Your task to perform on an android device: Open Google Chrome and open the bookmarks view Image 0: 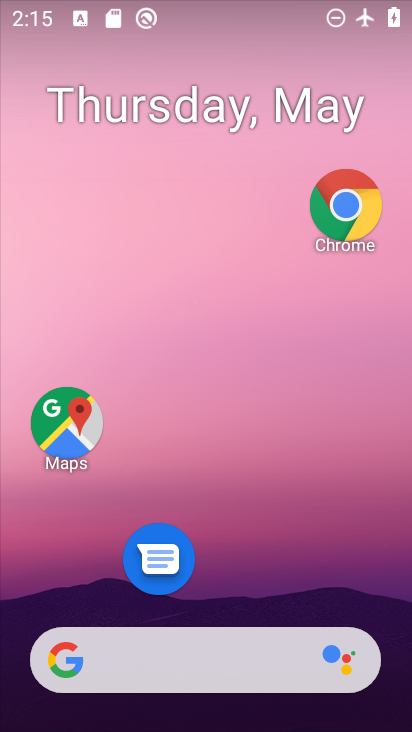
Step 0: drag from (223, 581) to (334, 86)
Your task to perform on an android device: Open Google Chrome and open the bookmarks view Image 1: 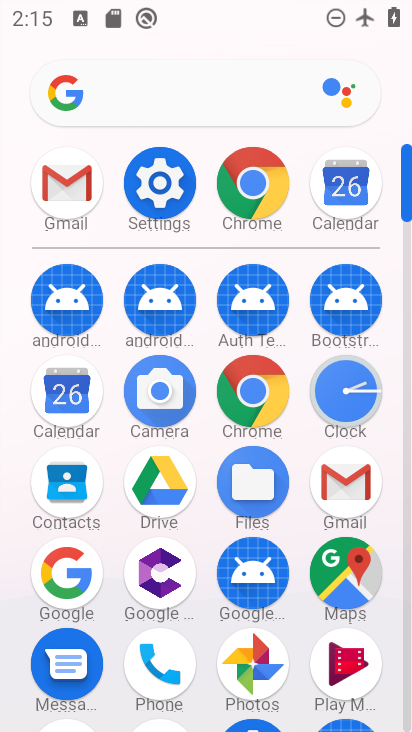
Step 1: click (262, 416)
Your task to perform on an android device: Open Google Chrome and open the bookmarks view Image 2: 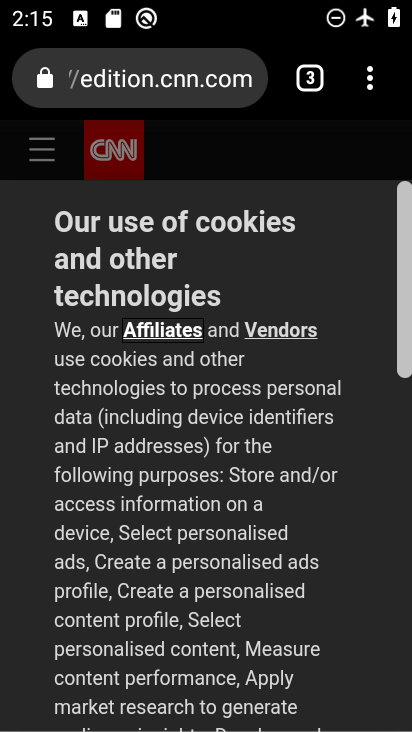
Step 2: click (377, 88)
Your task to perform on an android device: Open Google Chrome and open the bookmarks view Image 3: 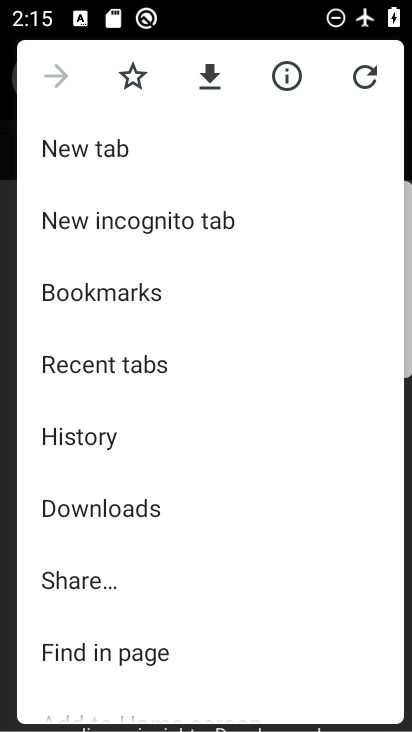
Step 3: click (139, 298)
Your task to perform on an android device: Open Google Chrome and open the bookmarks view Image 4: 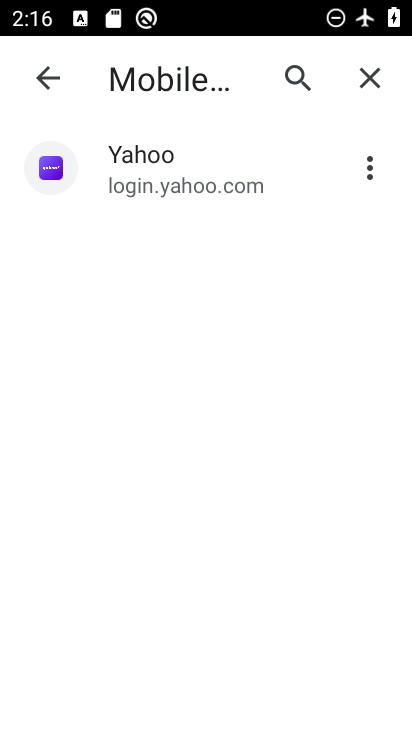
Step 4: task complete